Your task to perform on an android device: Turn off the flashlight Image 0: 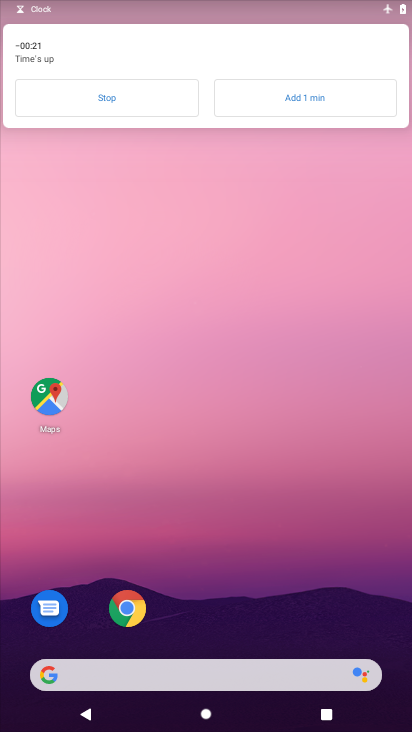
Step 0: click (104, 99)
Your task to perform on an android device: Turn off the flashlight Image 1: 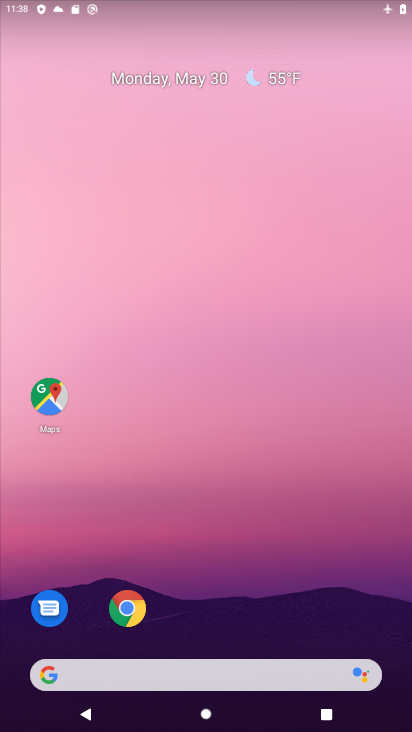
Step 1: task complete